Your task to perform on an android device: change text size in settings app Image 0: 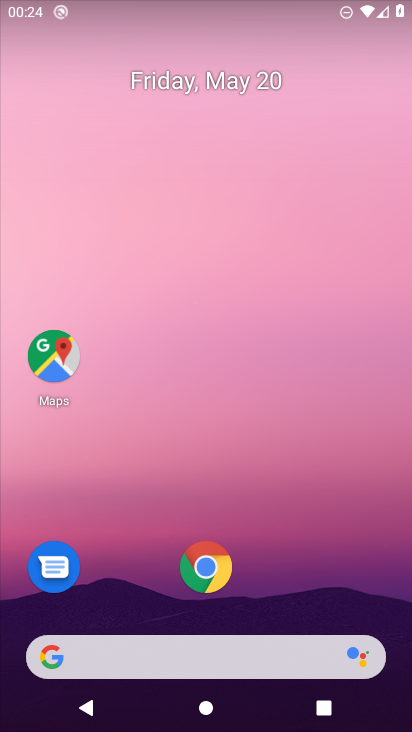
Step 0: drag from (168, 615) to (160, 118)
Your task to perform on an android device: change text size in settings app Image 1: 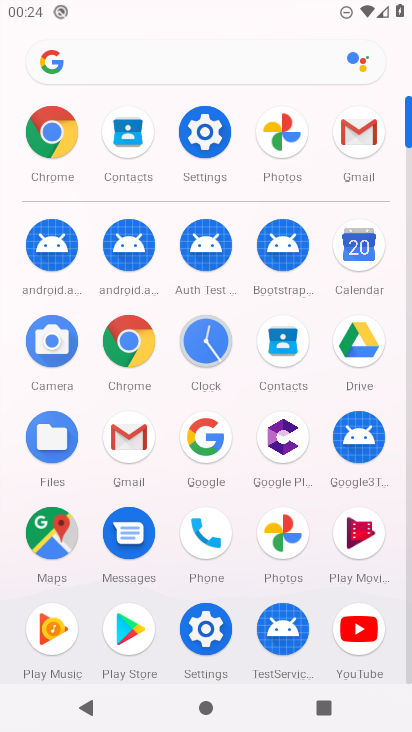
Step 1: click (201, 125)
Your task to perform on an android device: change text size in settings app Image 2: 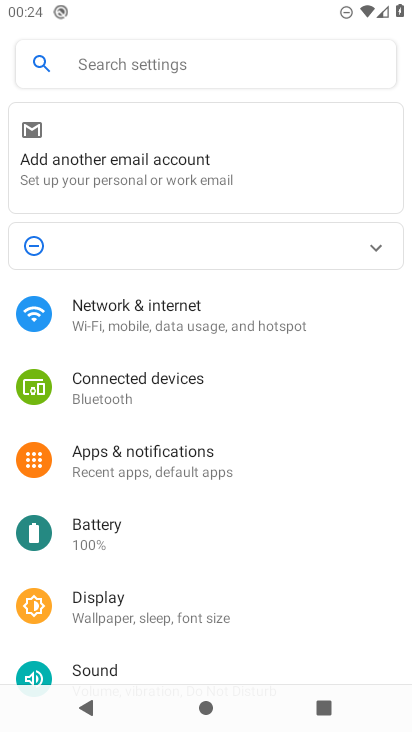
Step 2: drag from (180, 606) to (146, 333)
Your task to perform on an android device: change text size in settings app Image 3: 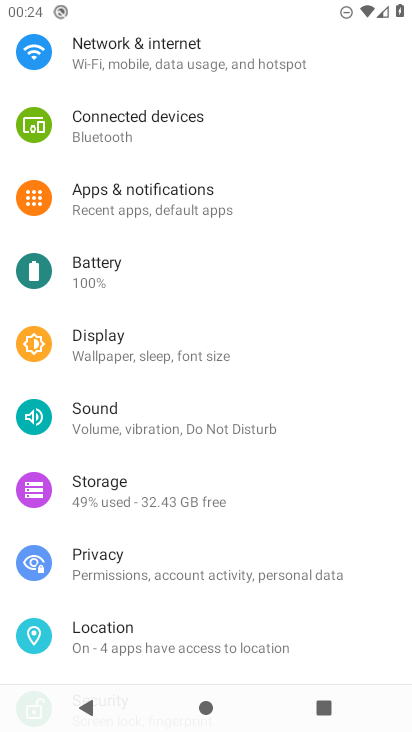
Step 3: click (144, 330)
Your task to perform on an android device: change text size in settings app Image 4: 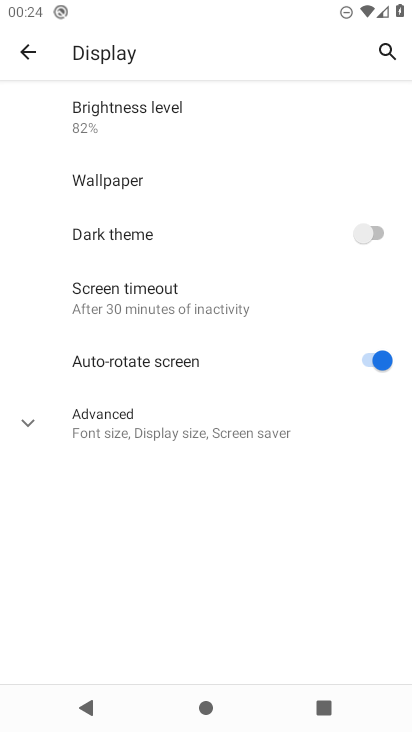
Step 4: click (40, 415)
Your task to perform on an android device: change text size in settings app Image 5: 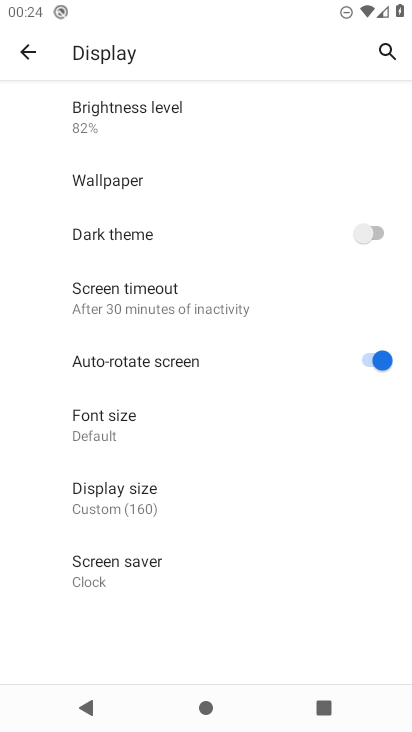
Step 5: click (129, 424)
Your task to perform on an android device: change text size in settings app Image 6: 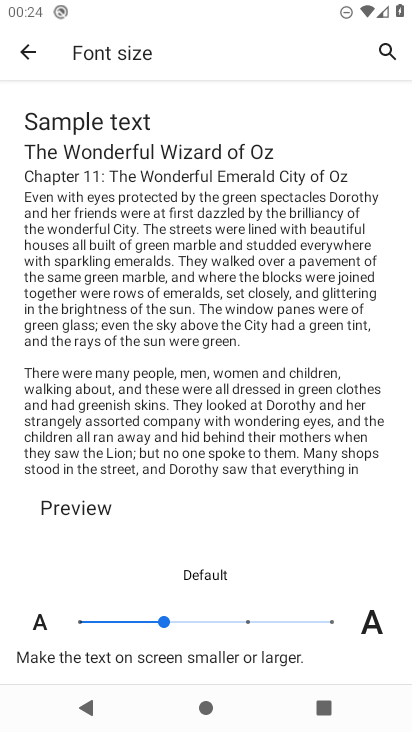
Step 6: click (87, 616)
Your task to perform on an android device: change text size in settings app Image 7: 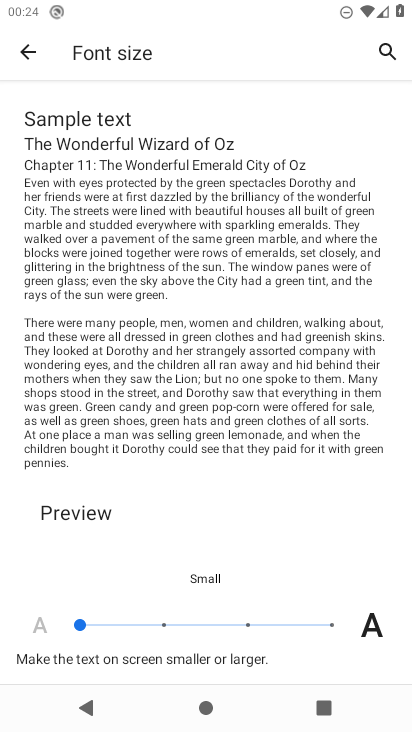
Step 7: task complete